Your task to perform on an android device: change notifications settings Image 0: 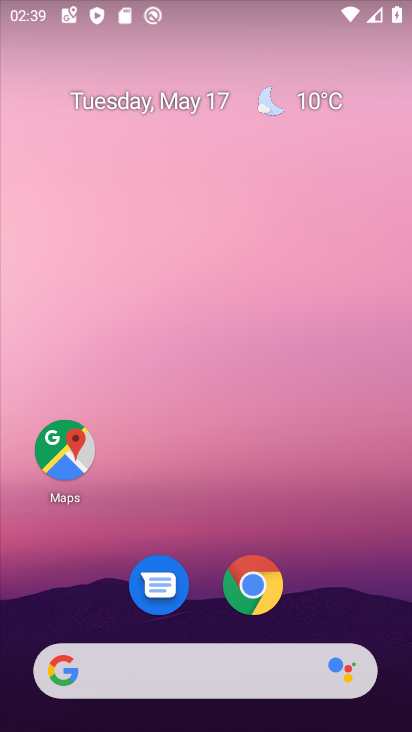
Step 0: drag from (288, 502) to (284, 18)
Your task to perform on an android device: change notifications settings Image 1: 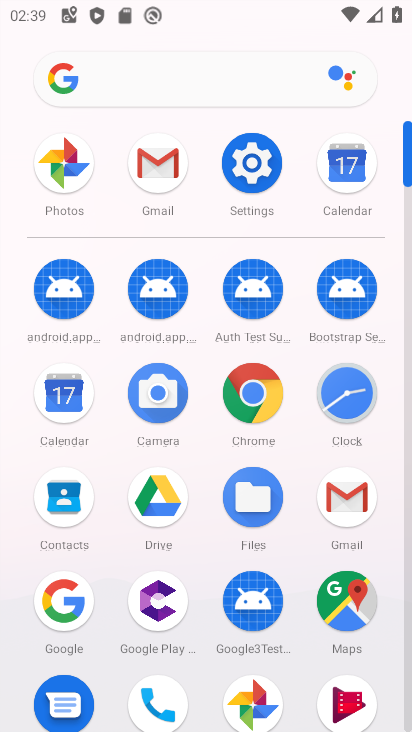
Step 1: click (256, 151)
Your task to perform on an android device: change notifications settings Image 2: 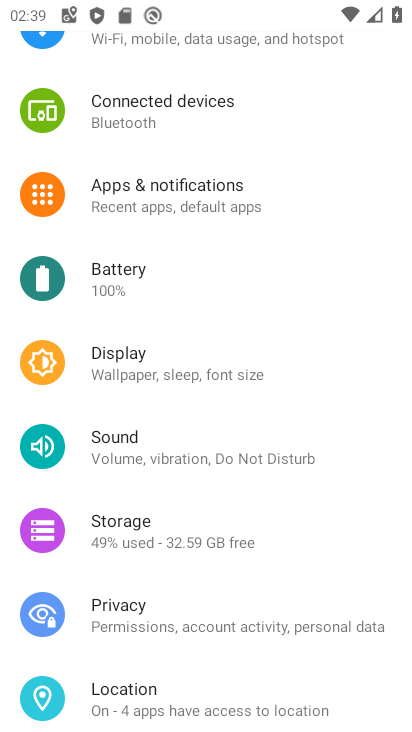
Step 2: click (225, 190)
Your task to perform on an android device: change notifications settings Image 3: 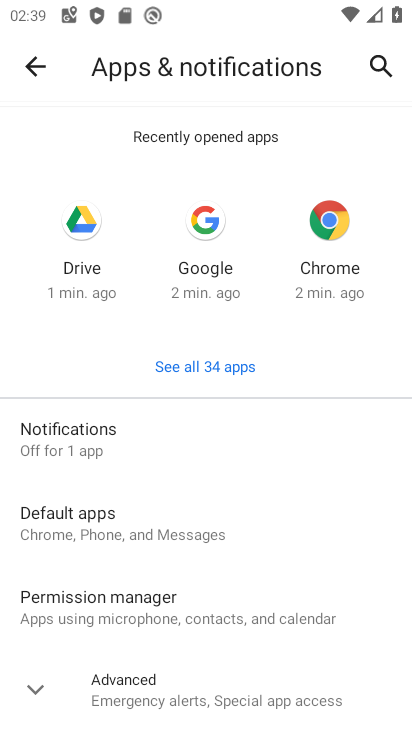
Step 3: click (191, 450)
Your task to perform on an android device: change notifications settings Image 4: 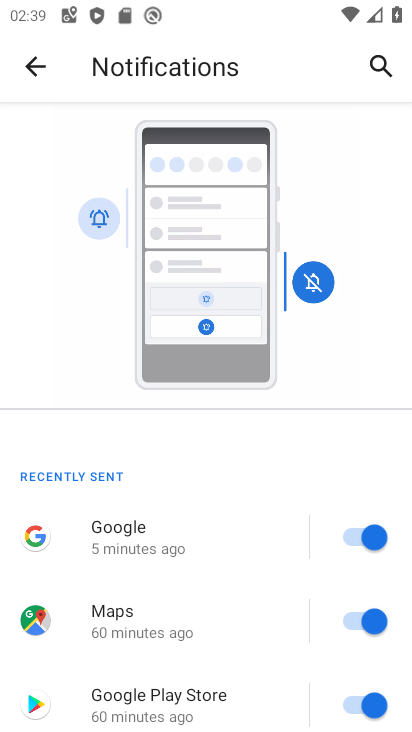
Step 4: drag from (213, 606) to (220, 319)
Your task to perform on an android device: change notifications settings Image 5: 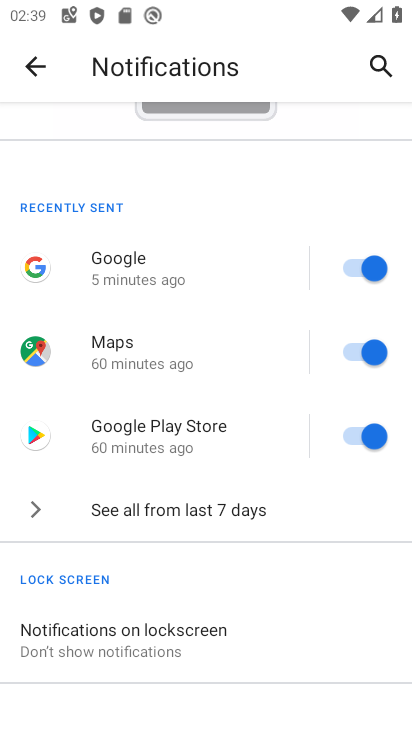
Step 5: click (207, 503)
Your task to perform on an android device: change notifications settings Image 6: 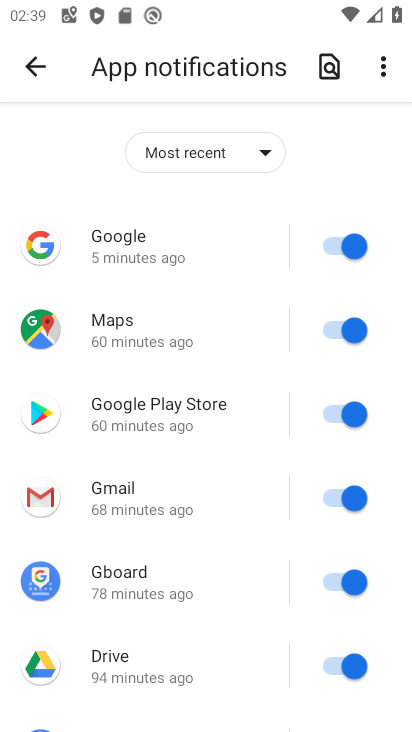
Step 6: drag from (210, 477) to (233, 264)
Your task to perform on an android device: change notifications settings Image 7: 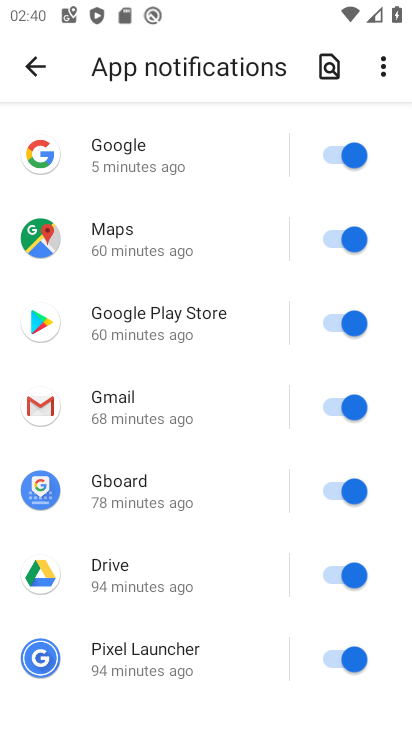
Step 7: click (339, 157)
Your task to perform on an android device: change notifications settings Image 8: 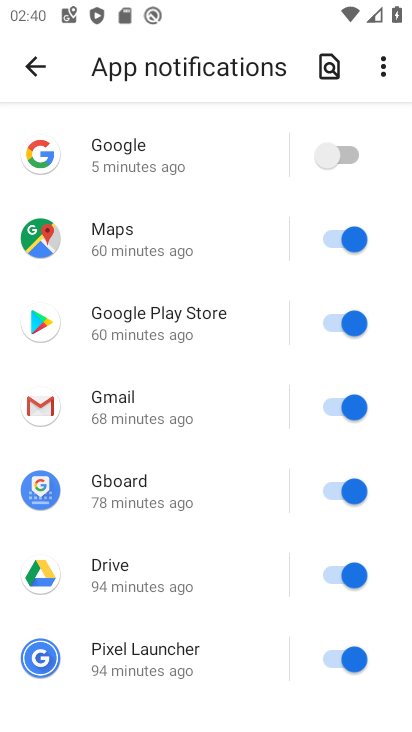
Step 8: click (343, 240)
Your task to perform on an android device: change notifications settings Image 9: 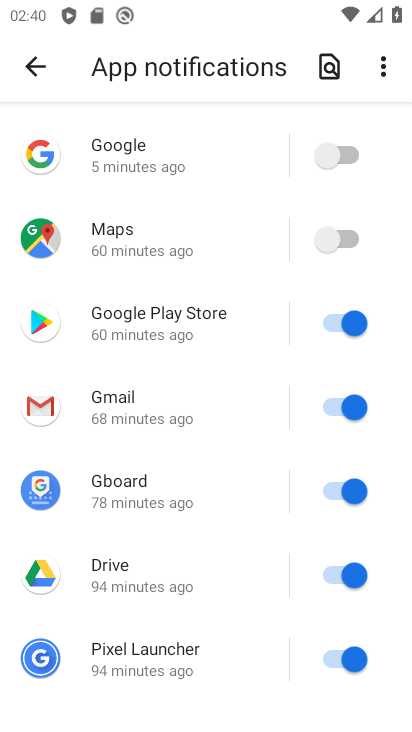
Step 9: click (343, 315)
Your task to perform on an android device: change notifications settings Image 10: 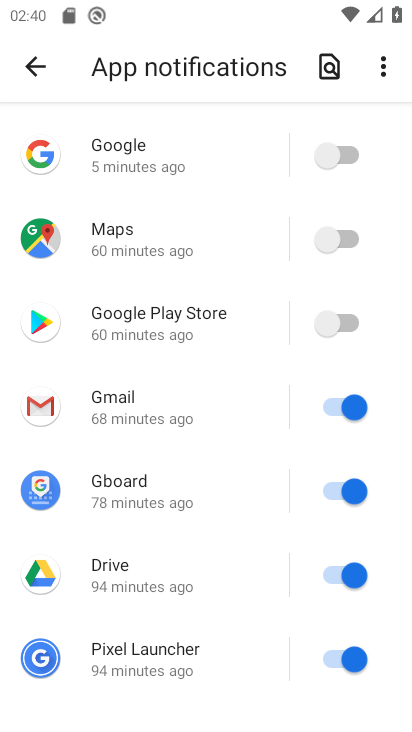
Step 10: click (342, 393)
Your task to perform on an android device: change notifications settings Image 11: 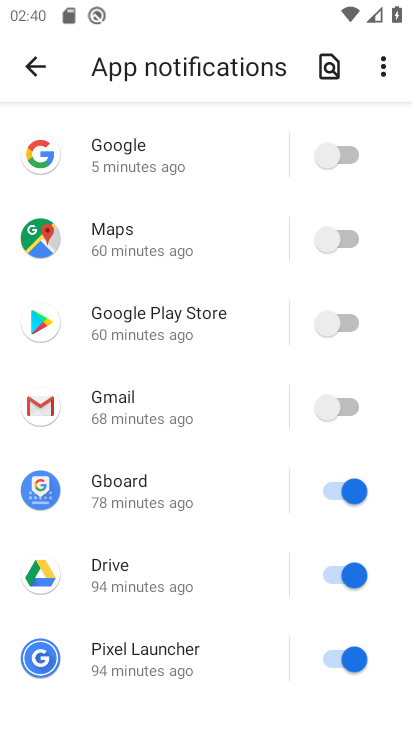
Step 11: click (341, 478)
Your task to perform on an android device: change notifications settings Image 12: 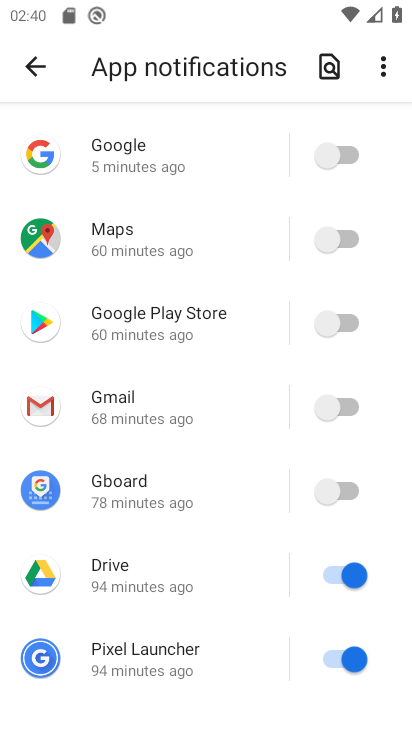
Step 12: click (339, 568)
Your task to perform on an android device: change notifications settings Image 13: 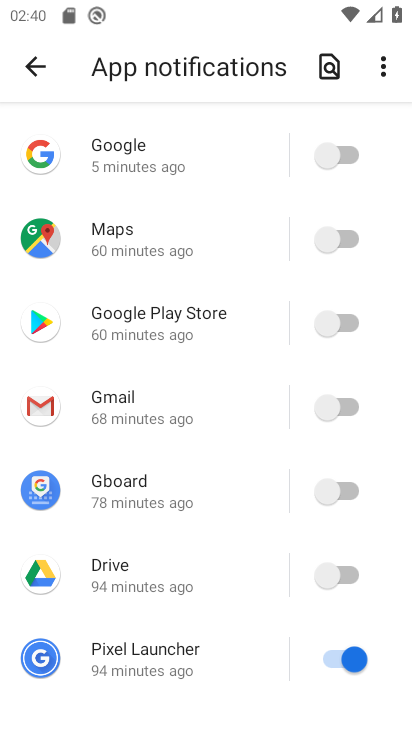
Step 13: click (336, 652)
Your task to perform on an android device: change notifications settings Image 14: 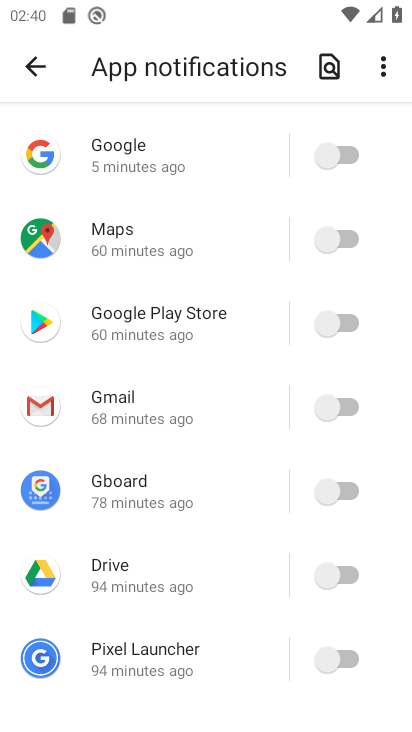
Step 14: task complete